Your task to perform on an android device: Go to calendar. Show me events next week Image 0: 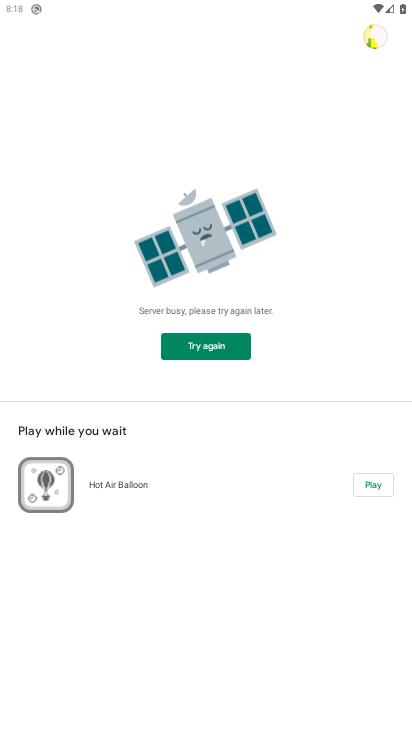
Step 0: press home button
Your task to perform on an android device: Go to calendar. Show me events next week Image 1: 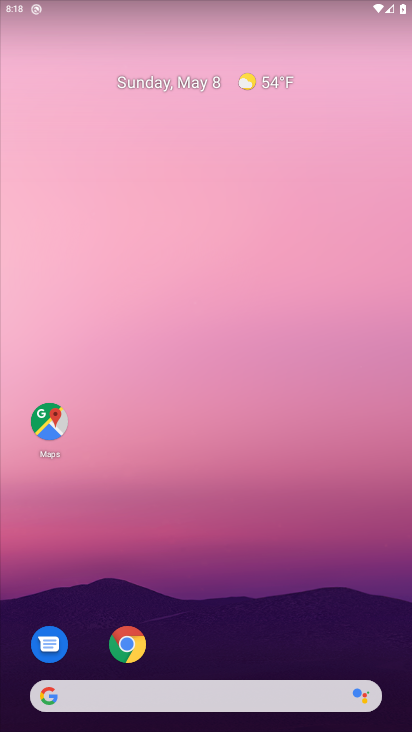
Step 1: drag from (220, 646) to (219, 417)
Your task to perform on an android device: Go to calendar. Show me events next week Image 2: 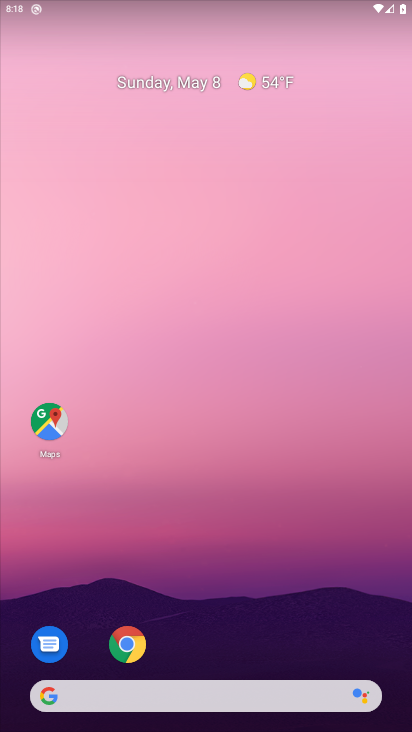
Step 2: drag from (171, 681) to (258, 193)
Your task to perform on an android device: Go to calendar. Show me events next week Image 3: 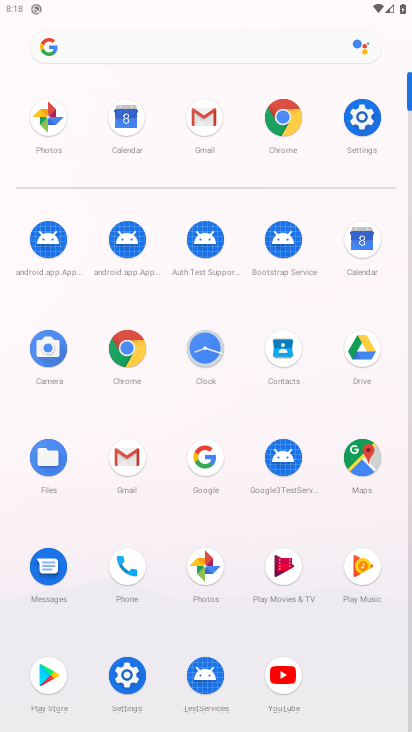
Step 3: click (364, 249)
Your task to perform on an android device: Go to calendar. Show me events next week Image 4: 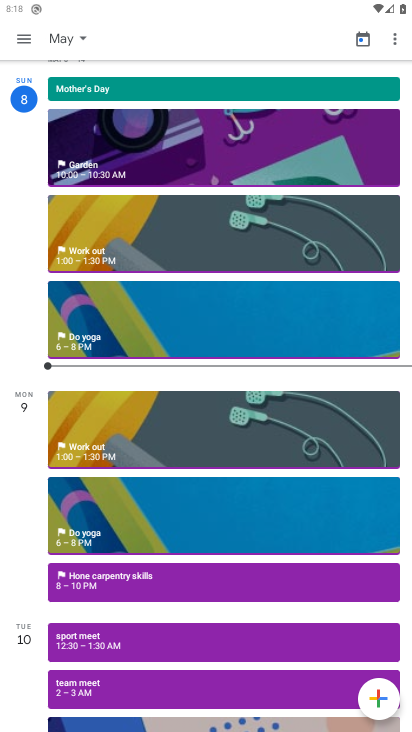
Step 4: drag from (147, 700) to (202, 328)
Your task to perform on an android device: Go to calendar. Show me events next week Image 5: 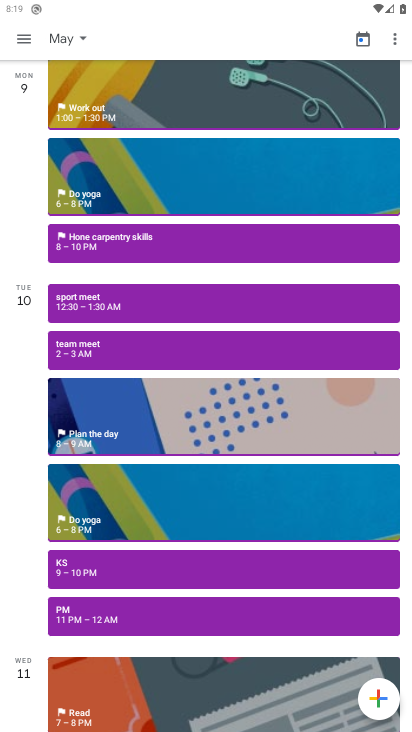
Step 5: drag from (110, 551) to (141, 292)
Your task to perform on an android device: Go to calendar. Show me events next week Image 6: 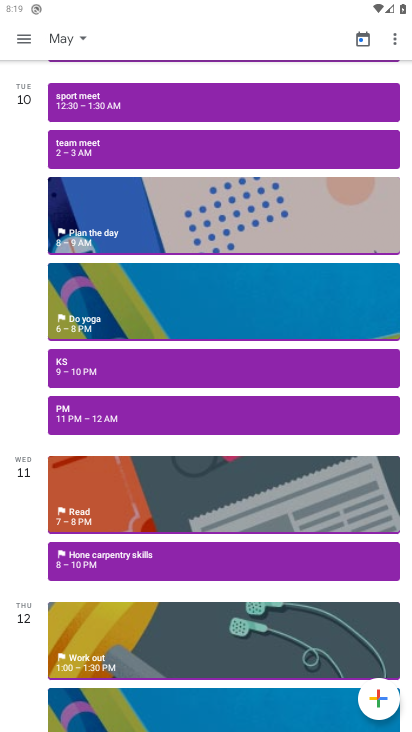
Step 6: drag from (188, 694) to (210, 363)
Your task to perform on an android device: Go to calendar. Show me events next week Image 7: 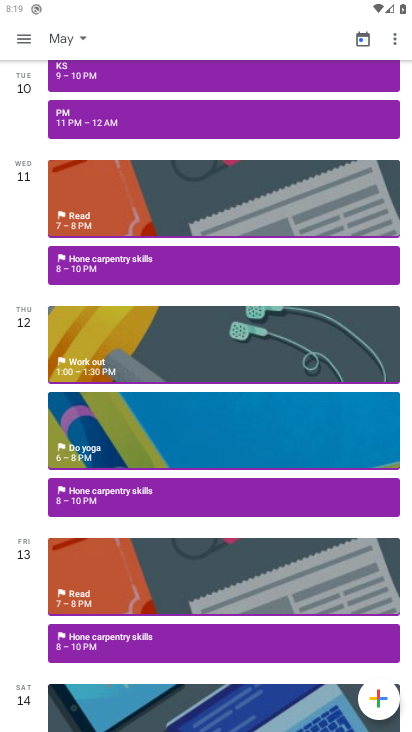
Step 7: drag from (142, 680) to (177, 456)
Your task to perform on an android device: Go to calendar. Show me events next week Image 8: 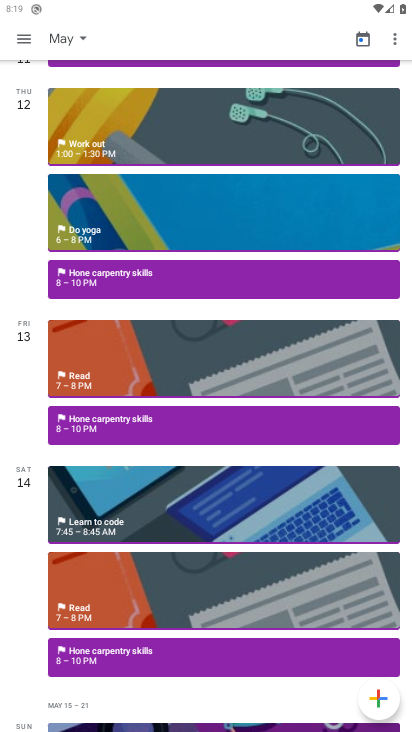
Step 8: drag from (134, 611) to (155, 464)
Your task to perform on an android device: Go to calendar. Show me events next week Image 9: 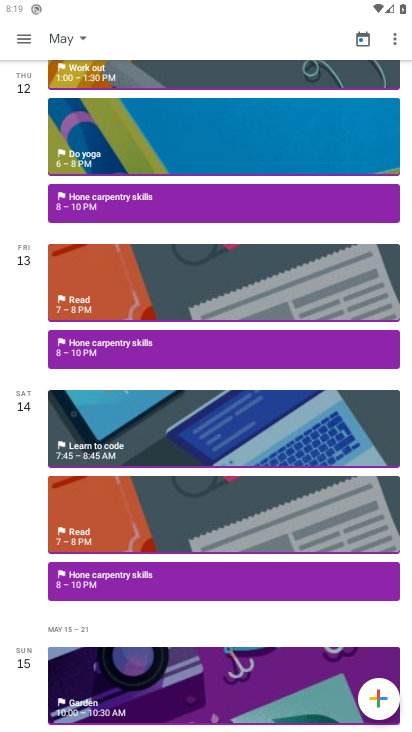
Step 9: click (150, 419)
Your task to perform on an android device: Go to calendar. Show me events next week Image 10: 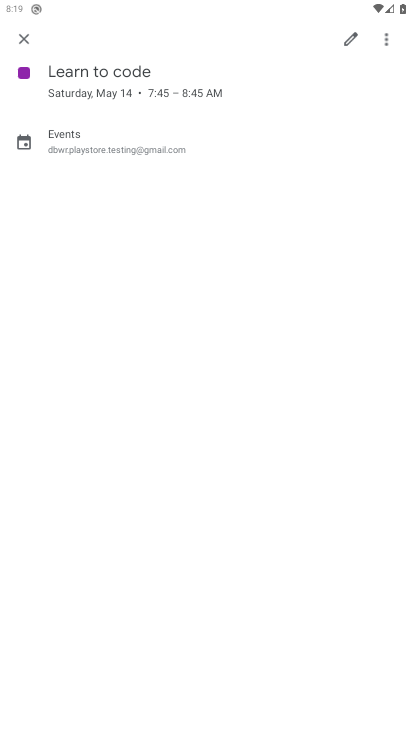
Step 10: task complete